Your task to perform on an android device: open chrome privacy settings Image 0: 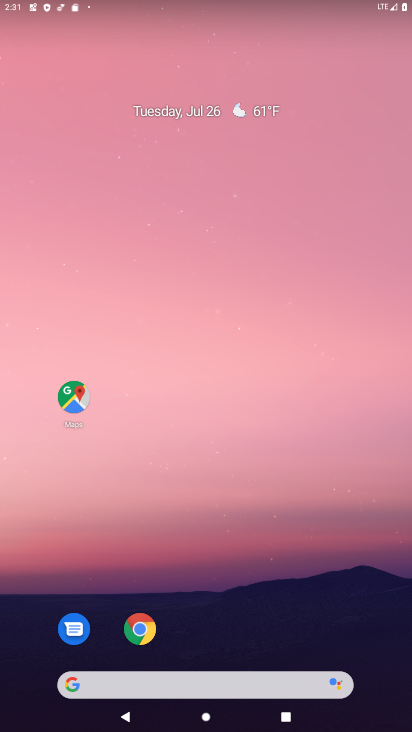
Step 0: click (143, 634)
Your task to perform on an android device: open chrome privacy settings Image 1: 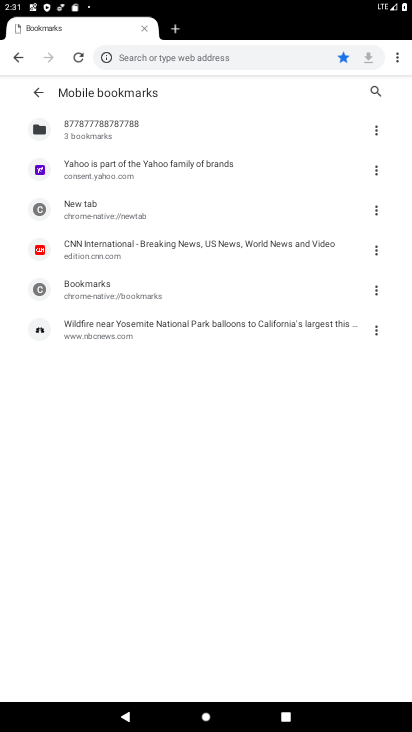
Step 1: click (397, 57)
Your task to perform on an android device: open chrome privacy settings Image 2: 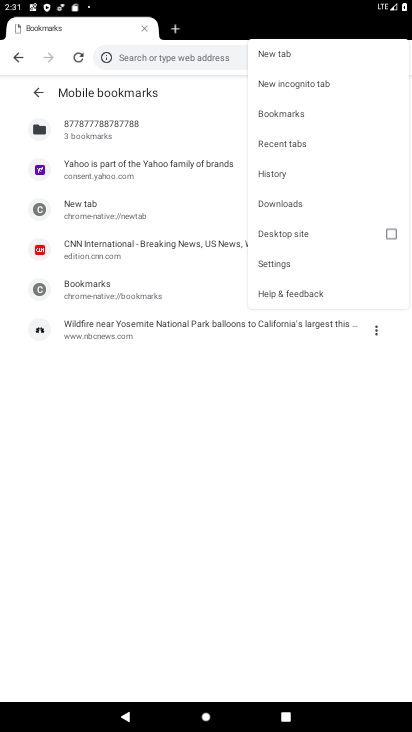
Step 2: click (286, 259)
Your task to perform on an android device: open chrome privacy settings Image 3: 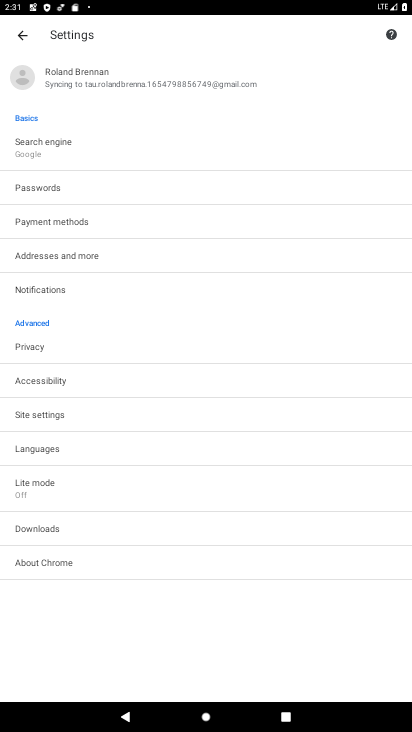
Step 3: click (39, 349)
Your task to perform on an android device: open chrome privacy settings Image 4: 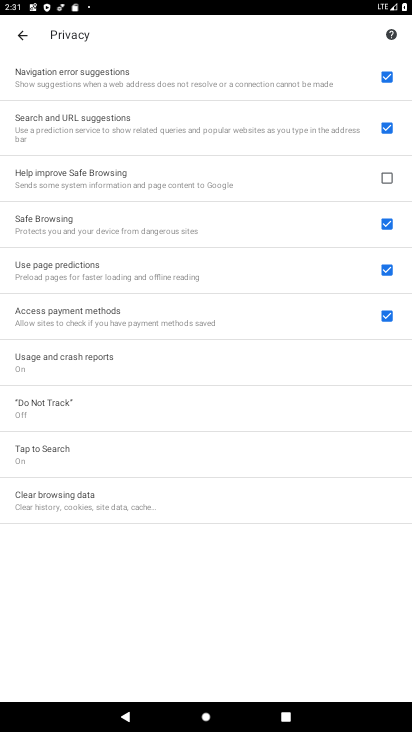
Step 4: task complete